Your task to perform on an android device: Go to CNN.com Image 0: 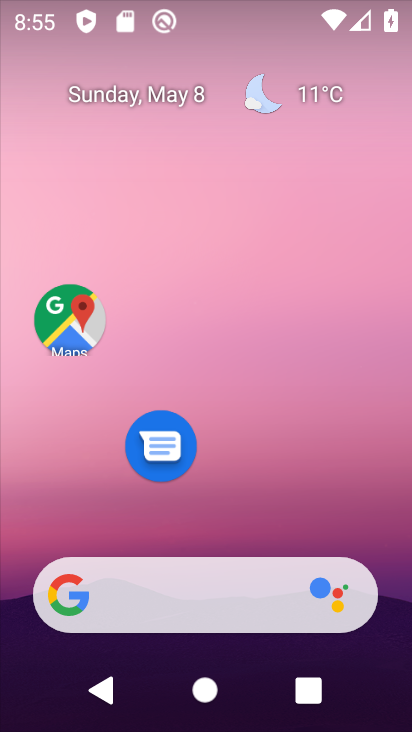
Step 0: drag from (333, 509) to (319, 352)
Your task to perform on an android device: Go to CNN.com Image 1: 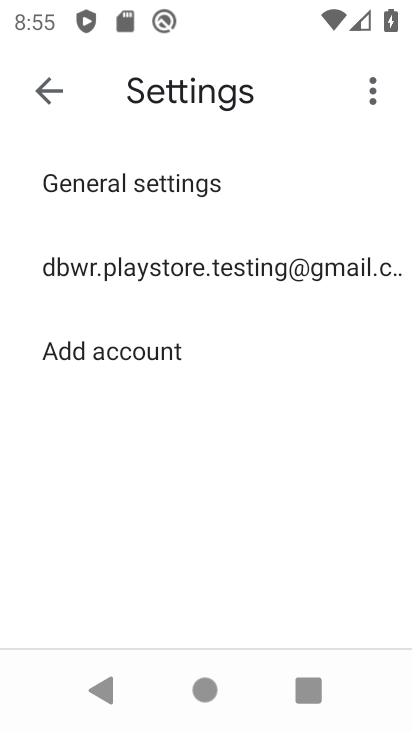
Step 1: press home button
Your task to perform on an android device: Go to CNN.com Image 2: 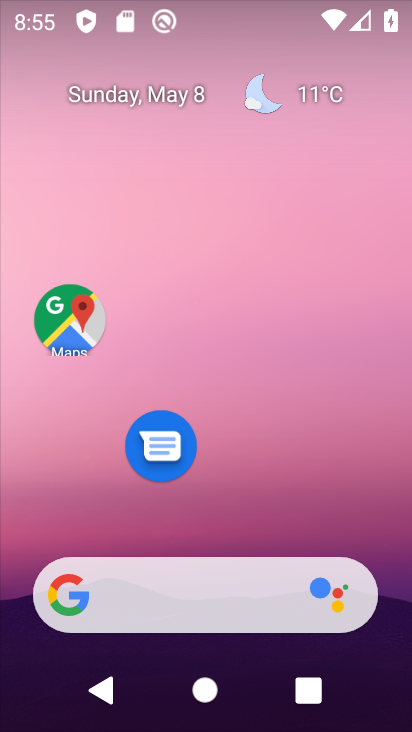
Step 2: drag from (231, 470) to (216, 88)
Your task to perform on an android device: Go to CNN.com Image 3: 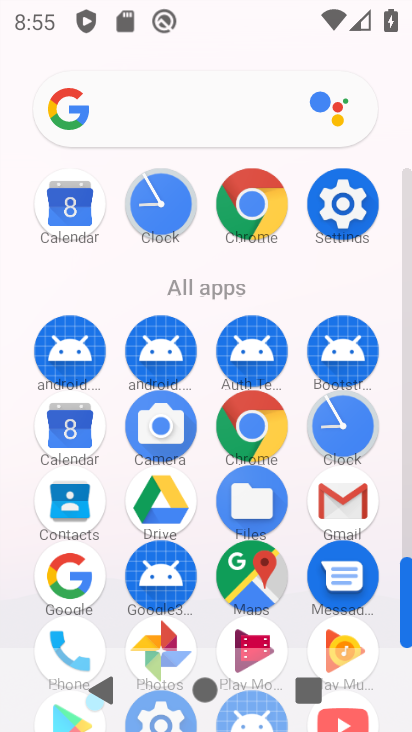
Step 3: click (272, 205)
Your task to perform on an android device: Go to CNN.com Image 4: 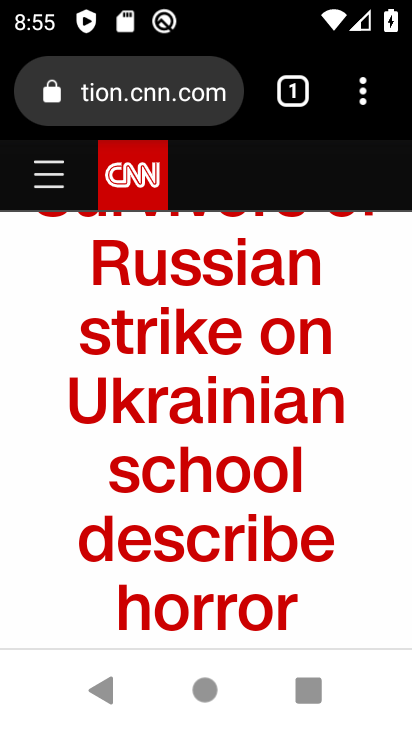
Step 4: task complete